Your task to perform on an android device: Go to settings Image 0: 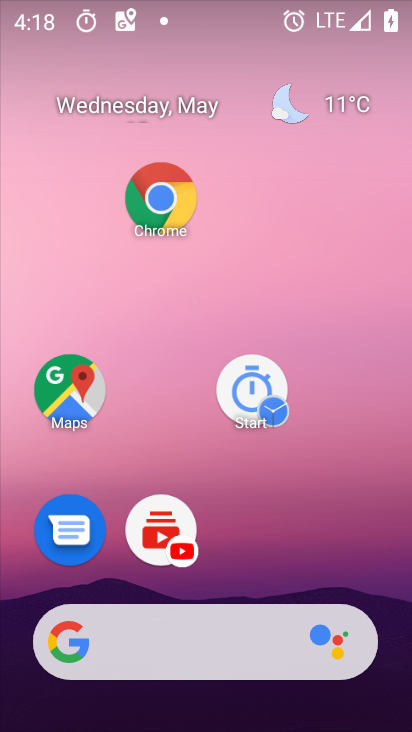
Step 0: drag from (241, 608) to (122, 127)
Your task to perform on an android device: Go to settings Image 1: 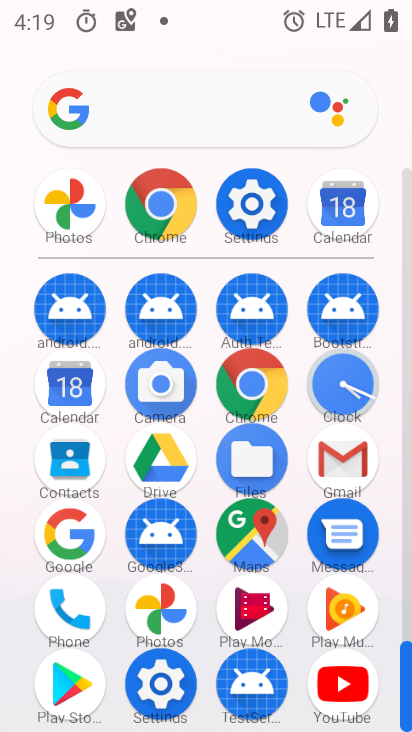
Step 1: click (250, 186)
Your task to perform on an android device: Go to settings Image 2: 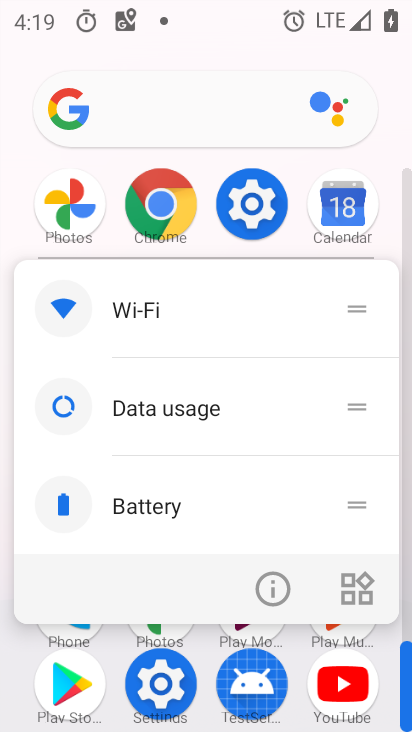
Step 2: click (247, 210)
Your task to perform on an android device: Go to settings Image 3: 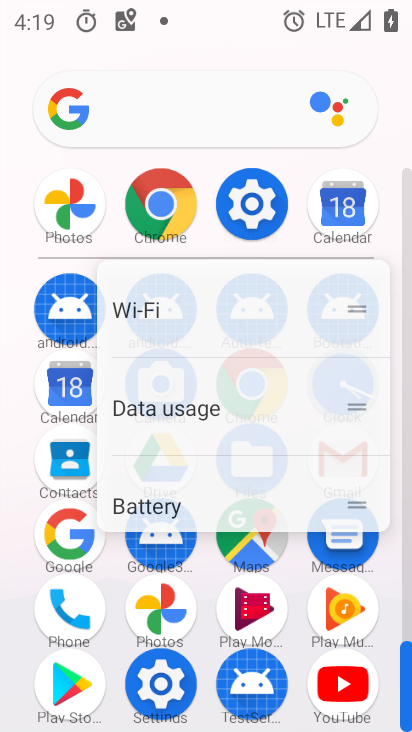
Step 3: click (242, 205)
Your task to perform on an android device: Go to settings Image 4: 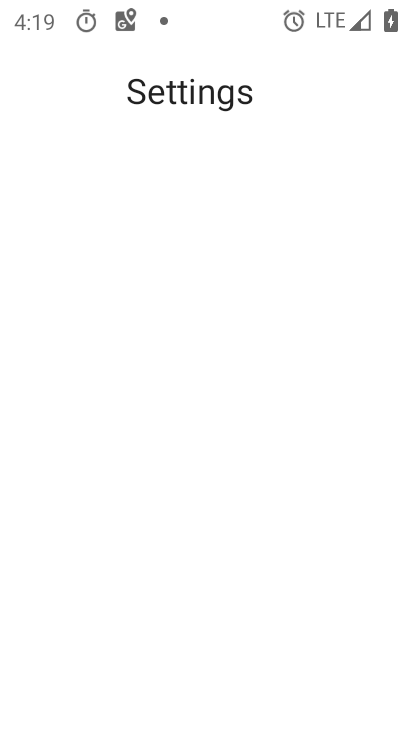
Step 4: click (242, 205)
Your task to perform on an android device: Go to settings Image 5: 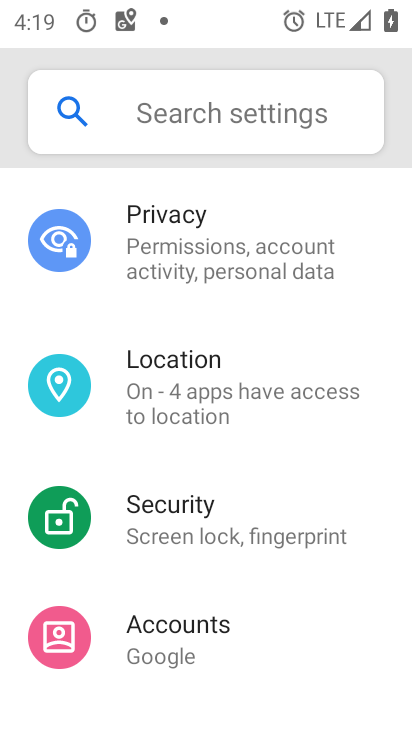
Step 5: click (242, 205)
Your task to perform on an android device: Go to settings Image 6: 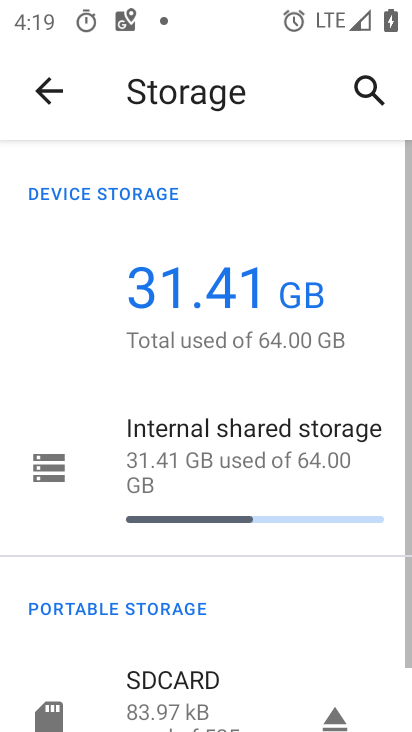
Step 6: task complete